Your task to perform on an android device: Open calendar and show me the fourth week of next month Image 0: 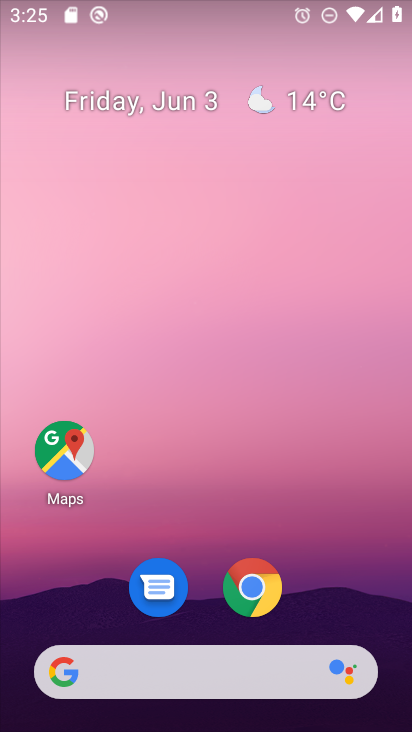
Step 0: drag from (276, 723) to (273, 199)
Your task to perform on an android device: Open calendar and show me the fourth week of next month Image 1: 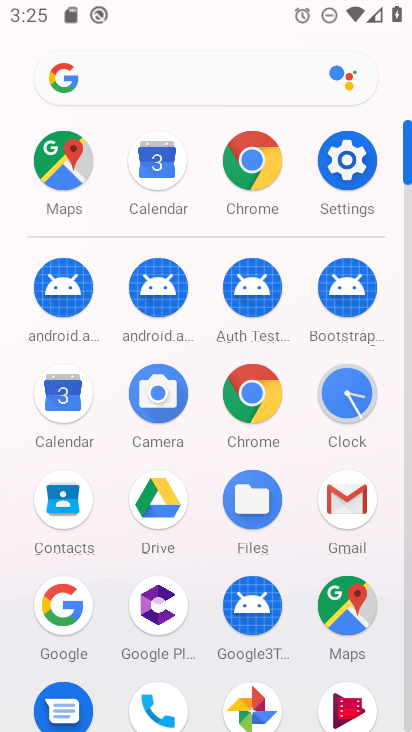
Step 1: click (72, 401)
Your task to perform on an android device: Open calendar and show me the fourth week of next month Image 2: 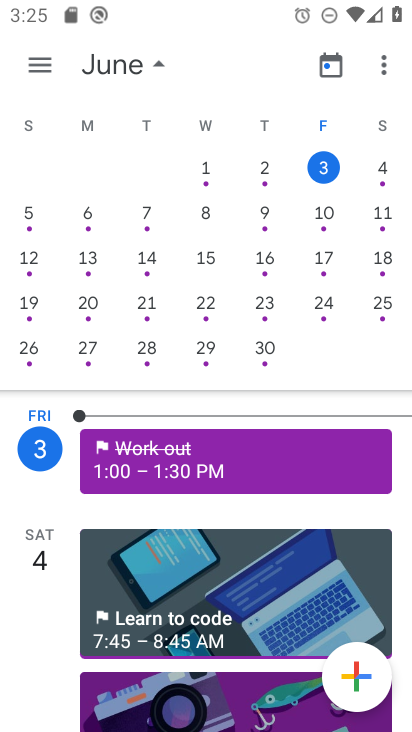
Step 2: drag from (341, 256) to (0, 230)
Your task to perform on an android device: Open calendar and show me the fourth week of next month Image 3: 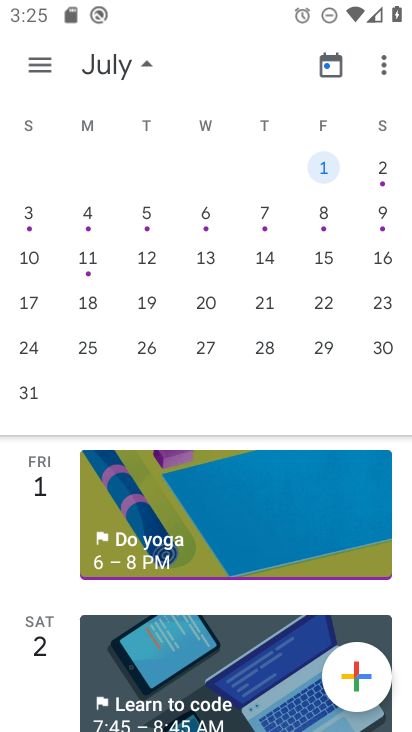
Step 3: click (84, 346)
Your task to perform on an android device: Open calendar and show me the fourth week of next month Image 4: 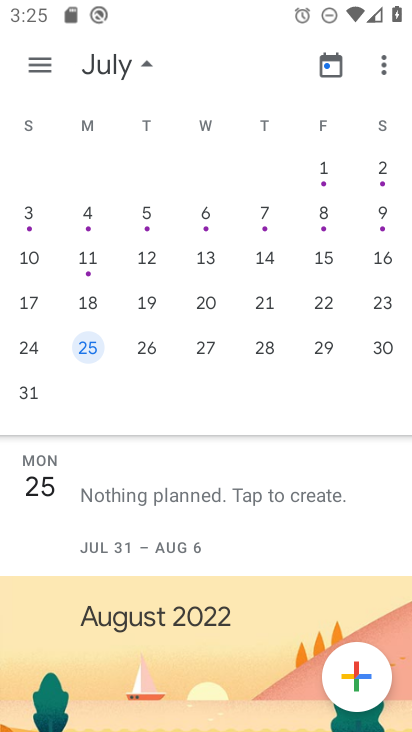
Step 4: click (90, 342)
Your task to perform on an android device: Open calendar and show me the fourth week of next month Image 5: 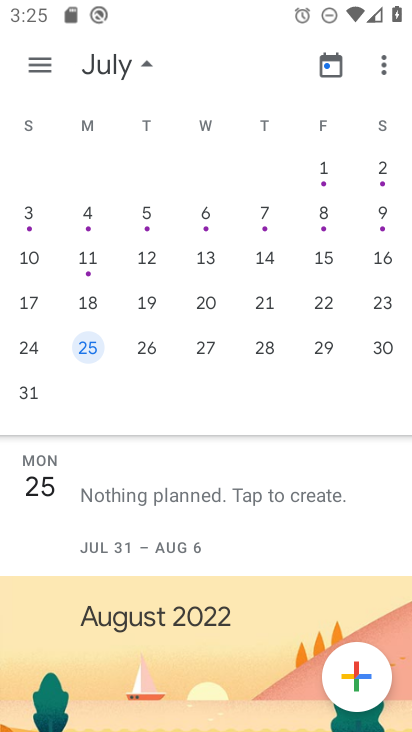
Step 5: click (43, 58)
Your task to perform on an android device: Open calendar and show me the fourth week of next month Image 6: 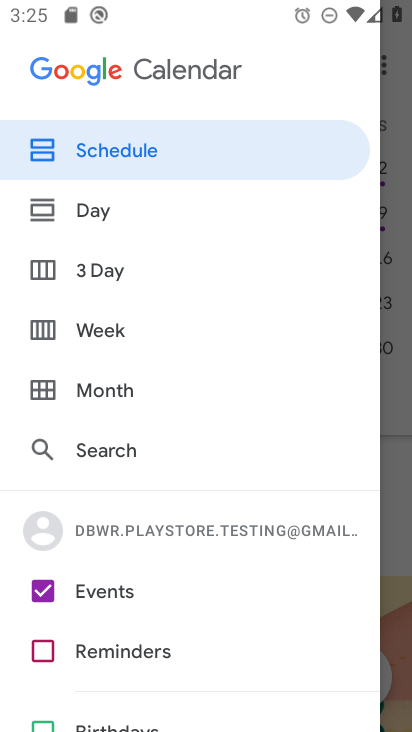
Step 6: click (108, 327)
Your task to perform on an android device: Open calendar and show me the fourth week of next month Image 7: 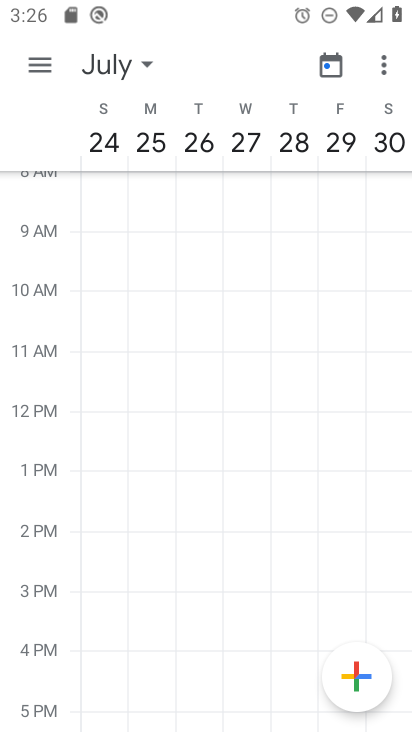
Step 7: task complete